Your task to perform on an android device: change your default location settings in chrome Image 0: 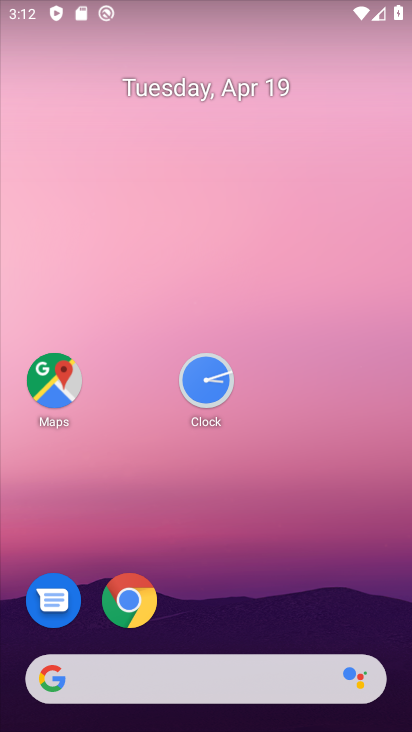
Step 0: drag from (286, 574) to (252, 142)
Your task to perform on an android device: change your default location settings in chrome Image 1: 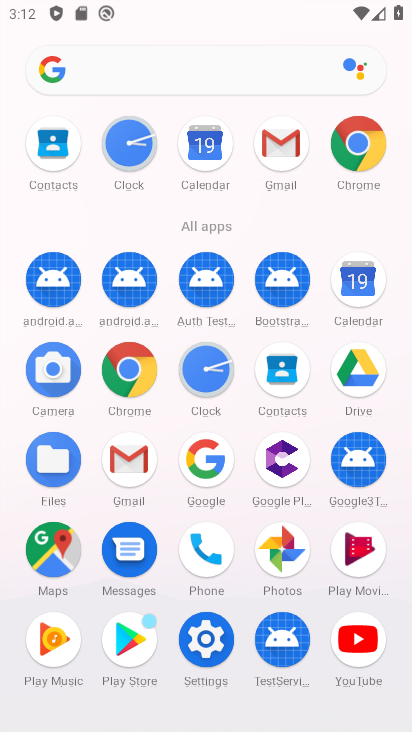
Step 1: click (355, 132)
Your task to perform on an android device: change your default location settings in chrome Image 2: 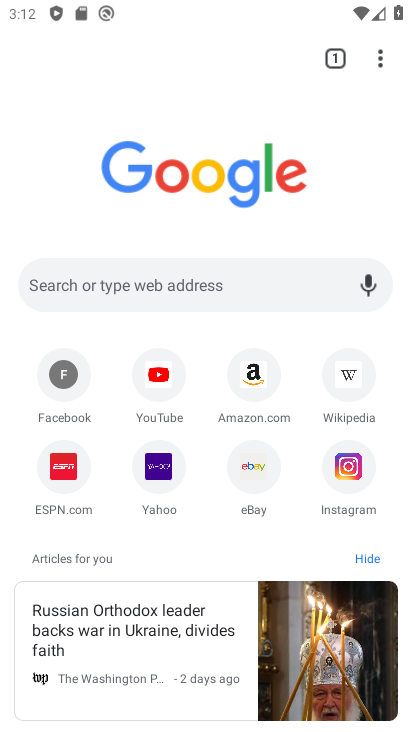
Step 2: click (373, 51)
Your task to perform on an android device: change your default location settings in chrome Image 3: 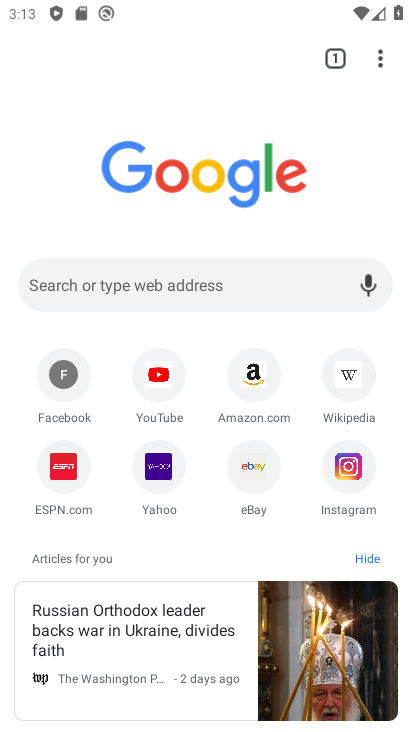
Step 3: click (381, 54)
Your task to perform on an android device: change your default location settings in chrome Image 4: 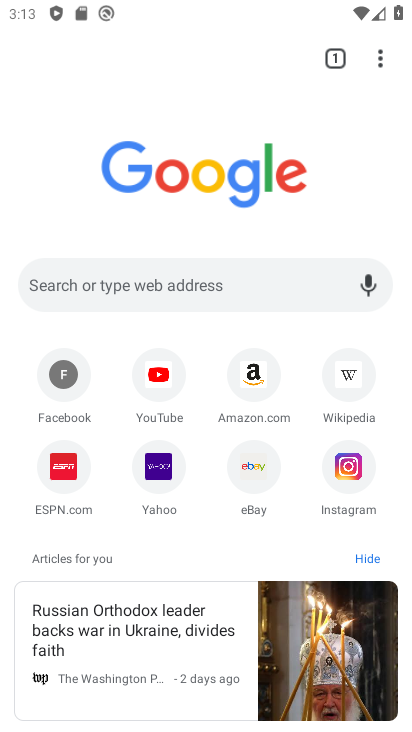
Step 4: click (380, 52)
Your task to perform on an android device: change your default location settings in chrome Image 5: 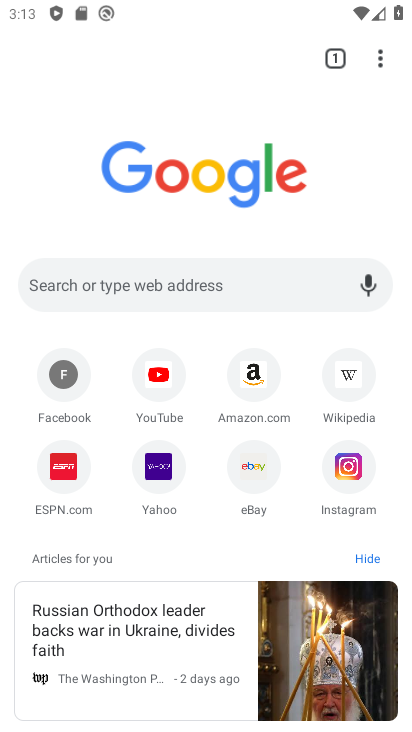
Step 5: click (378, 66)
Your task to perform on an android device: change your default location settings in chrome Image 6: 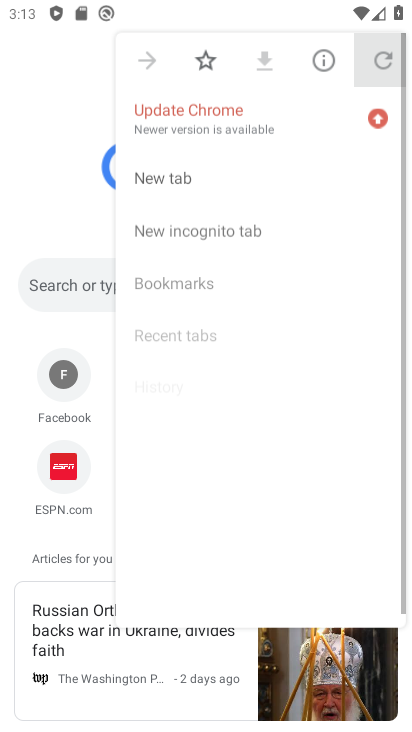
Step 6: click (377, 64)
Your task to perform on an android device: change your default location settings in chrome Image 7: 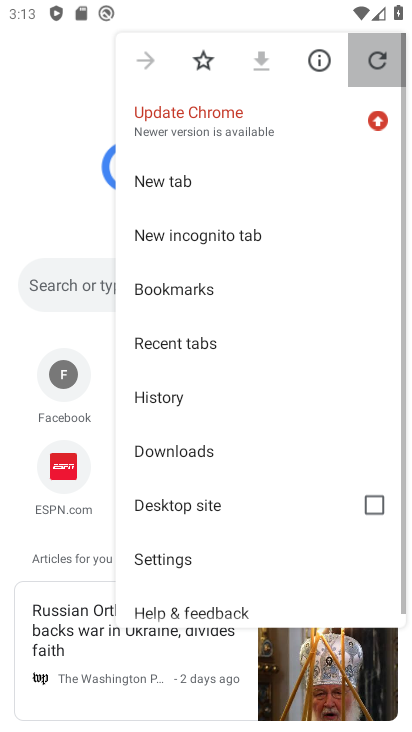
Step 7: click (377, 64)
Your task to perform on an android device: change your default location settings in chrome Image 8: 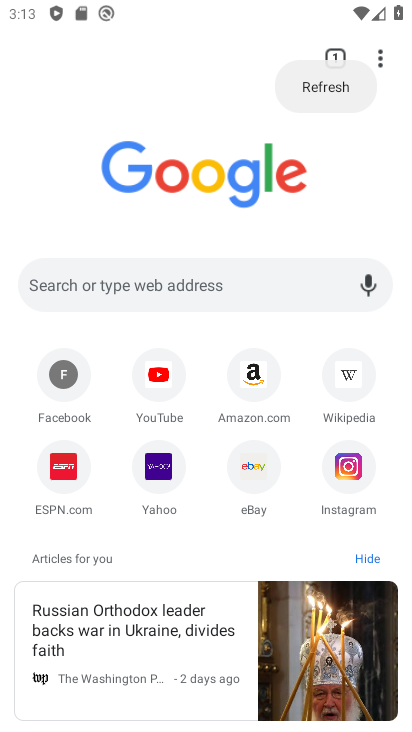
Step 8: click (377, 64)
Your task to perform on an android device: change your default location settings in chrome Image 9: 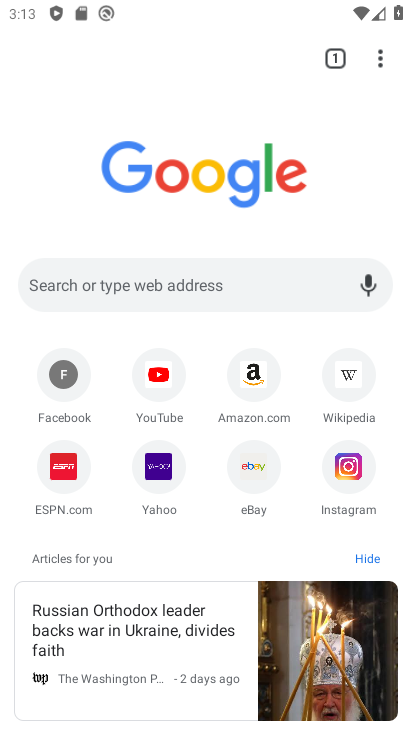
Step 9: click (375, 59)
Your task to perform on an android device: change your default location settings in chrome Image 10: 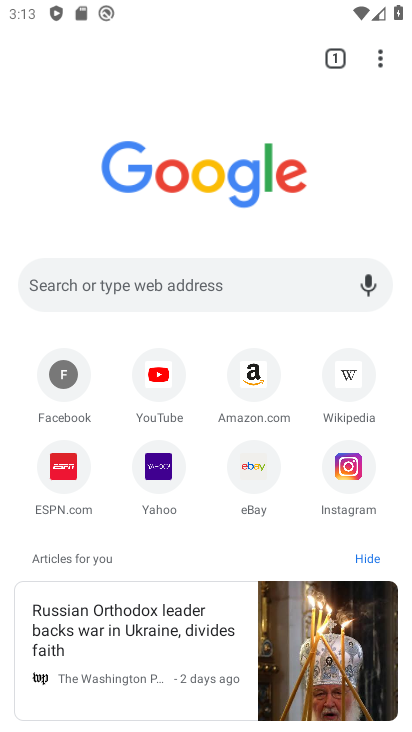
Step 10: click (379, 54)
Your task to perform on an android device: change your default location settings in chrome Image 11: 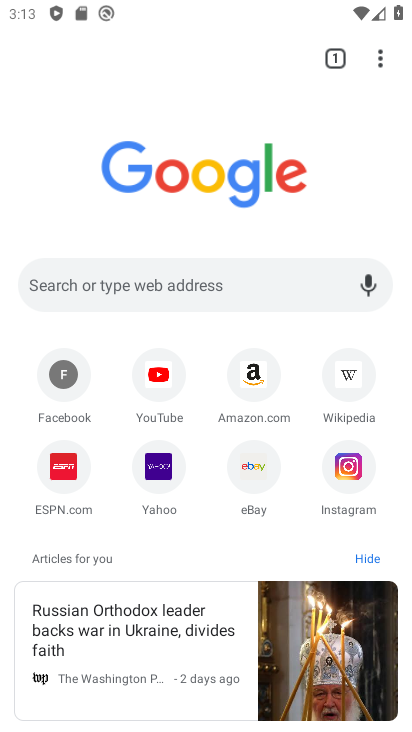
Step 11: click (381, 64)
Your task to perform on an android device: change your default location settings in chrome Image 12: 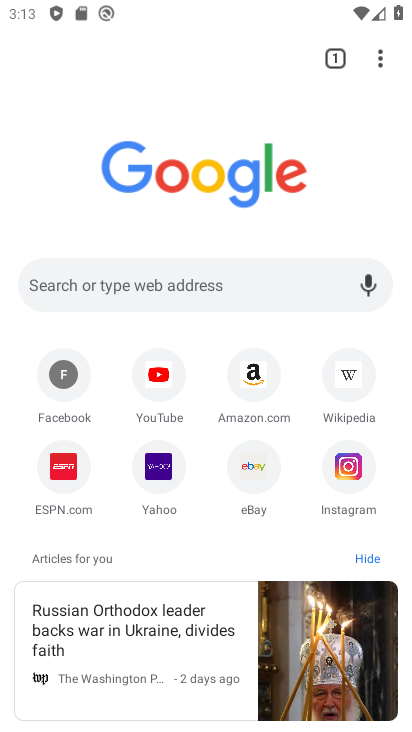
Step 12: click (381, 61)
Your task to perform on an android device: change your default location settings in chrome Image 13: 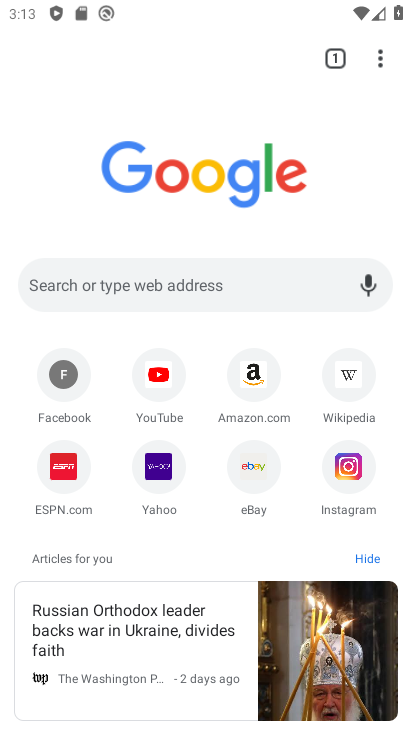
Step 13: click (377, 61)
Your task to perform on an android device: change your default location settings in chrome Image 14: 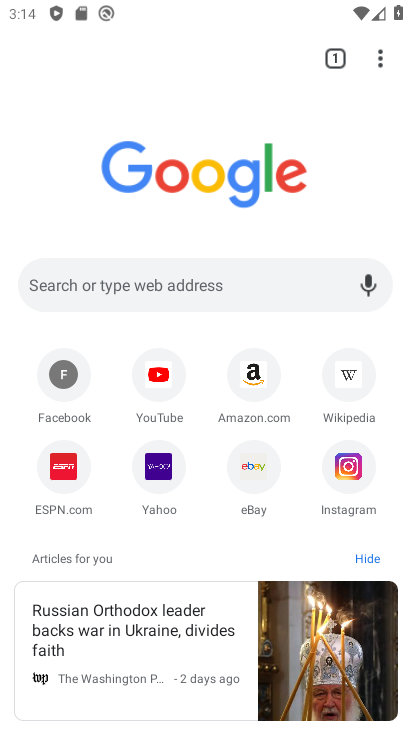
Step 14: click (377, 52)
Your task to perform on an android device: change your default location settings in chrome Image 15: 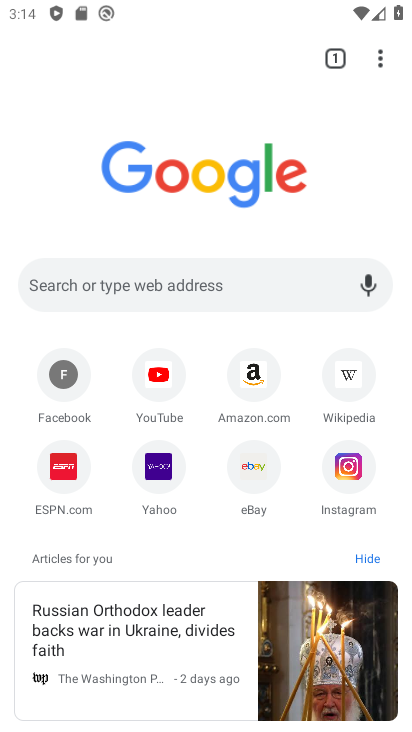
Step 15: click (380, 58)
Your task to perform on an android device: change your default location settings in chrome Image 16: 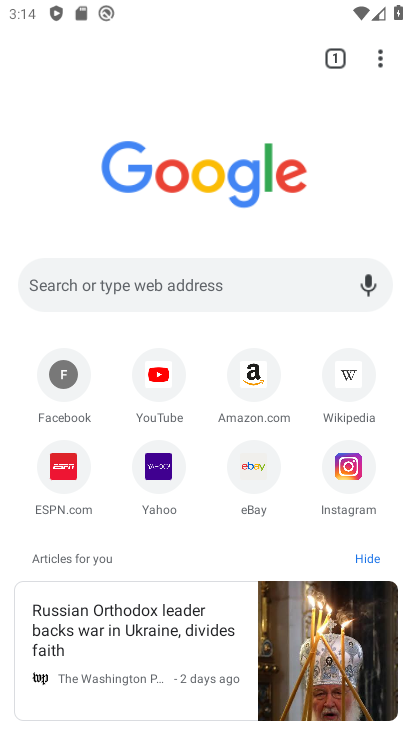
Step 16: click (380, 58)
Your task to perform on an android device: change your default location settings in chrome Image 17: 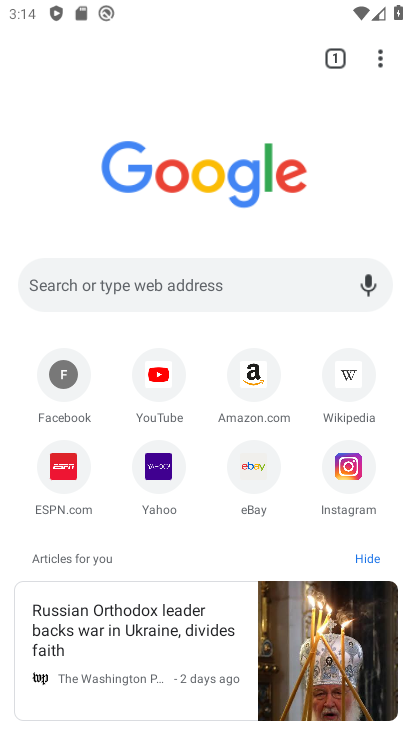
Step 17: click (380, 65)
Your task to perform on an android device: change your default location settings in chrome Image 18: 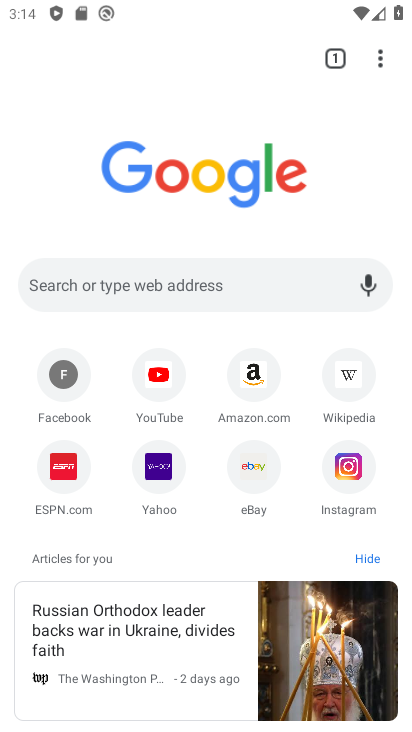
Step 18: click (380, 65)
Your task to perform on an android device: change your default location settings in chrome Image 19: 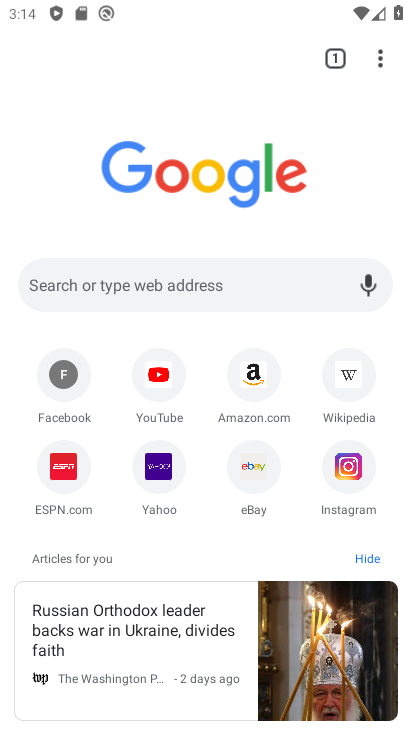
Step 19: click (377, 66)
Your task to perform on an android device: change your default location settings in chrome Image 20: 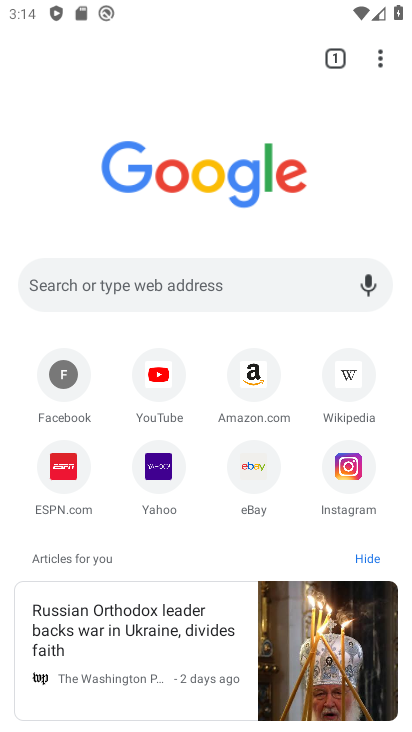
Step 20: click (374, 62)
Your task to perform on an android device: change your default location settings in chrome Image 21: 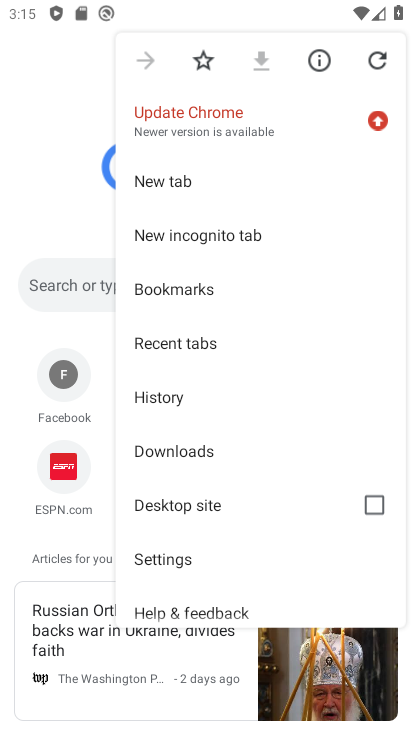
Step 21: click (162, 557)
Your task to perform on an android device: change your default location settings in chrome Image 22: 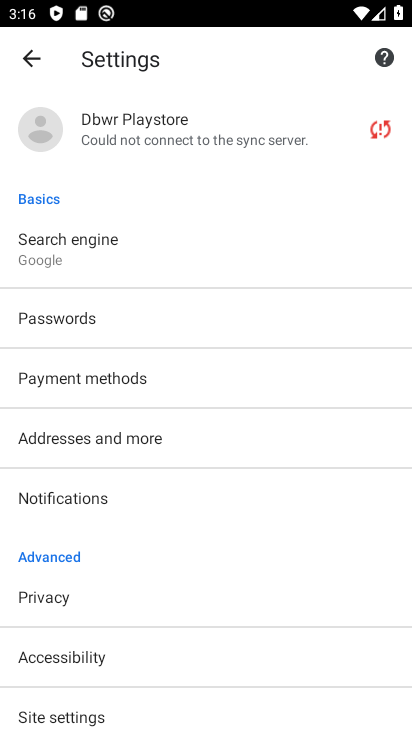
Step 22: drag from (162, 622) to (191, 238)
Your task to perform on an android device: change your default location settings in chrome Image 23: 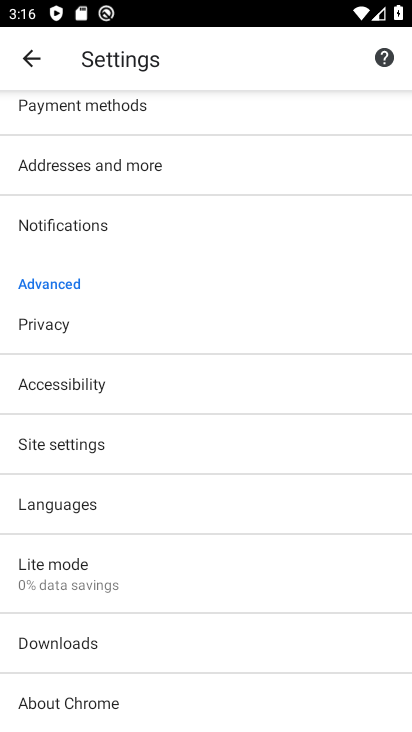
Step 23: click (55, 444)
Your task to perform on an android device: change your default location settings in chrome Image 24: 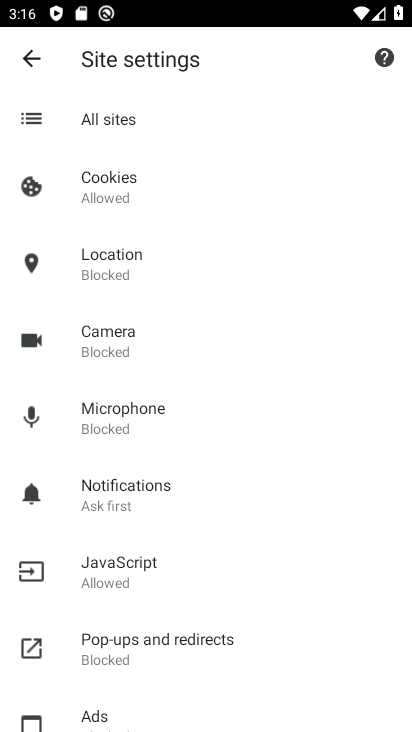
Step 24: click (103, 268)
Your task to perform on an android device: change your default location settings in chrome Image 25: 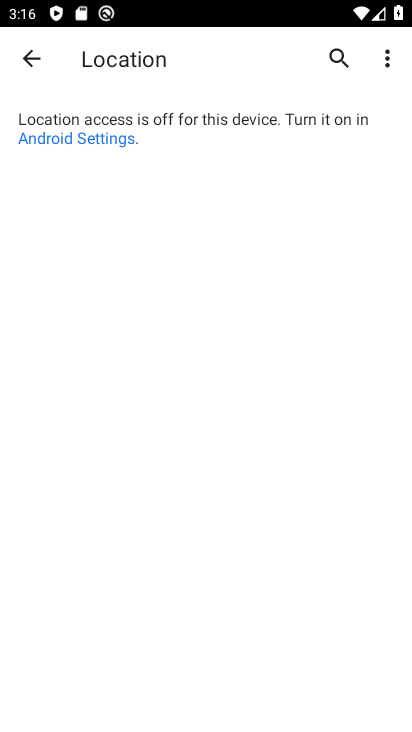
Step 25: click (64, 130)
Your task to perform on an android device: change your default location settings in chrome Image 26: 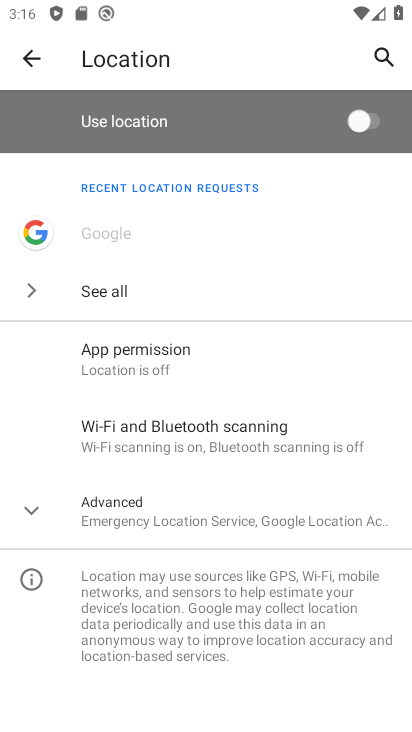
Step 26: click (353, 119)
Your task to perform on an android device: change your default location settings in chrome Image 27: 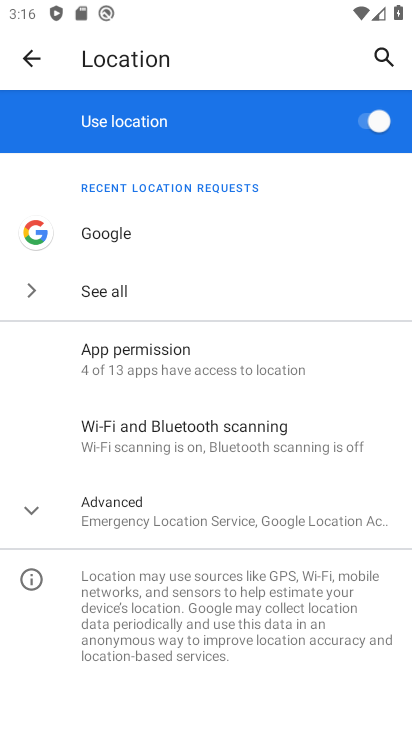
Step 27: task complete